Your task to perform on an android device: When is my next meeting? Image 0: 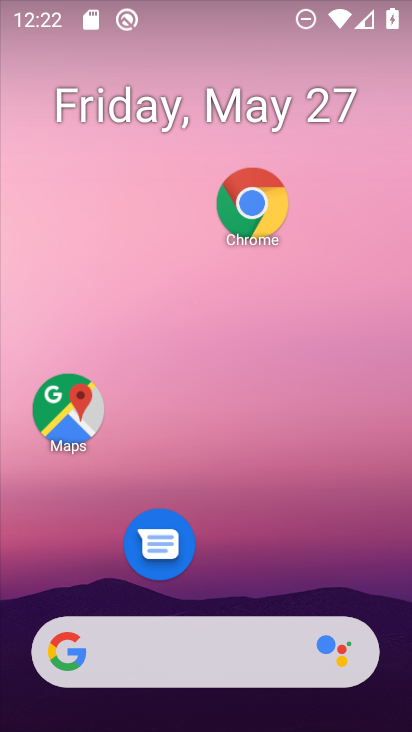
Step 0: drag from (209, 596) to (181, 157)
Your task to perform on an android device: When is my next meeting? Image 1: 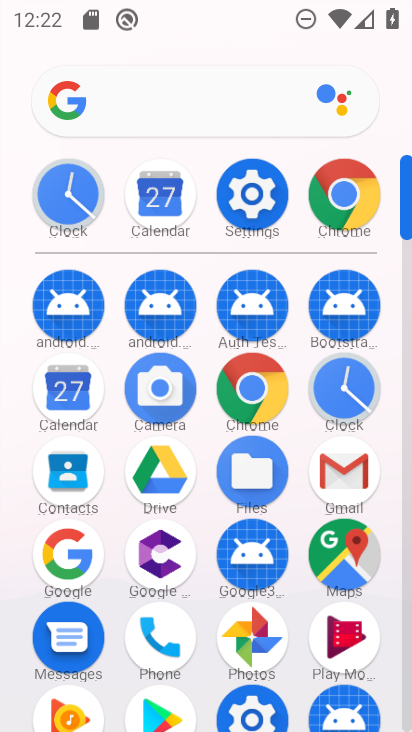
Step 1: drag from (198, 671) to (186, 281)
Your task to perform on an android device: When is my next meeting? Image 2: 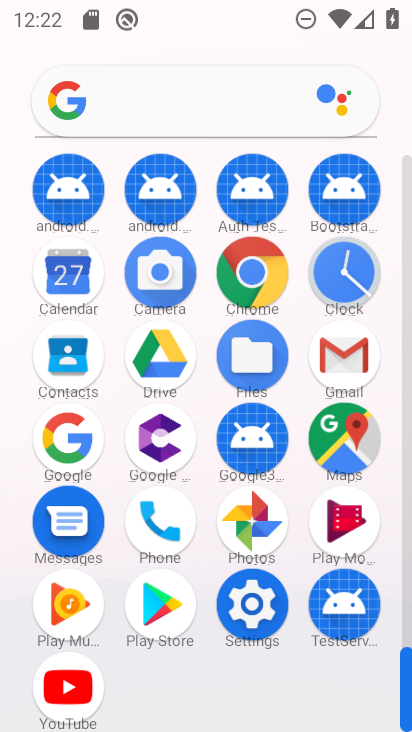
Step 2: click (65, 298)
Your task to perform on an android device: When is my next meeting? Image 3: 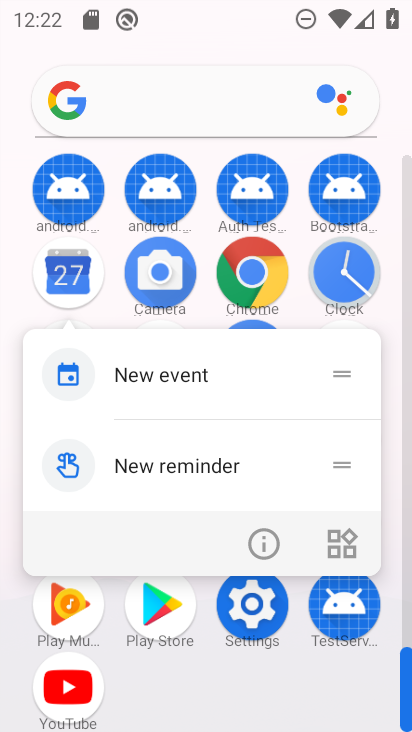
Step 3: click (266, 540)
Your task to perform on an android device: When is my next meeting? Image 4: 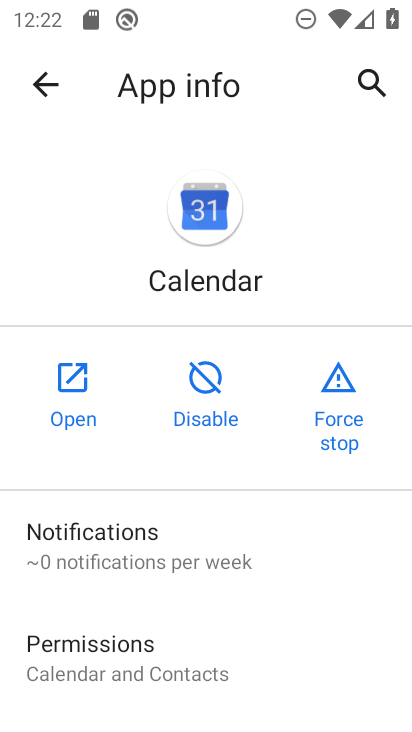
Step 4: click (71, 394)
Your task to perform on an android device: When is my next meeting? Image 5: 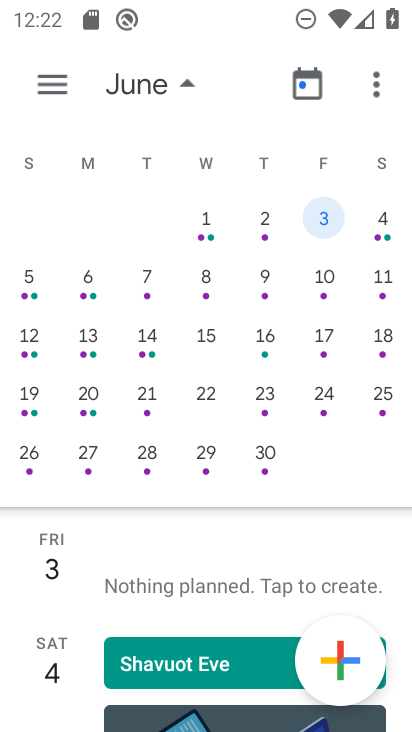
Step 5: drag from (71, 405) to (352, 268)
Your task to perform on an android device: When is my next meeting? Image 6: 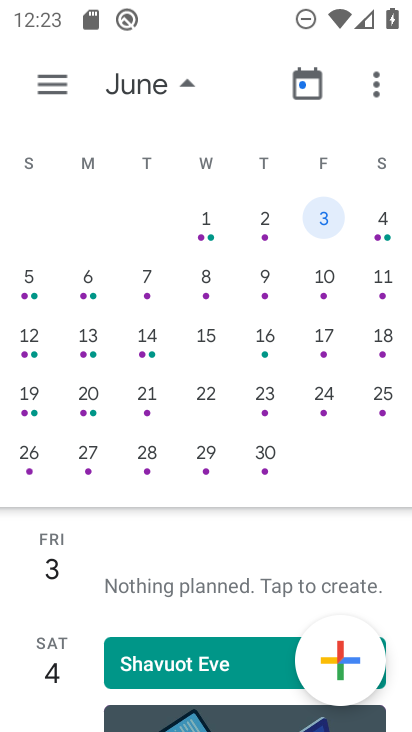
Step 6: drag from (68, 427) to (410, 185)
Your task to perform on an android device: When is my next meeting? Image 7: 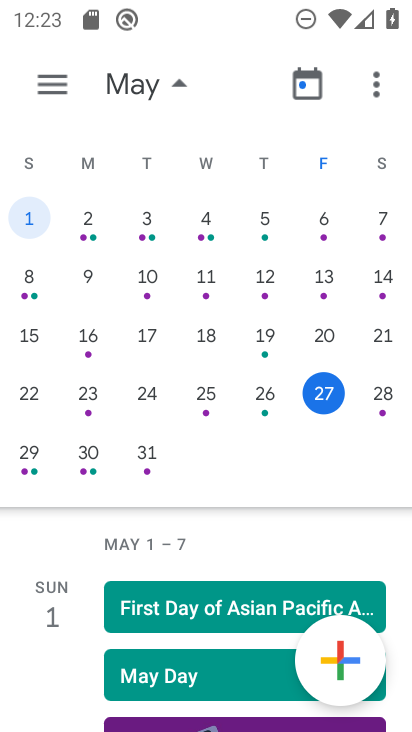
Step 7: click (323, 398)
Your task to perform on an android device: When is my next meeting? Image 8: 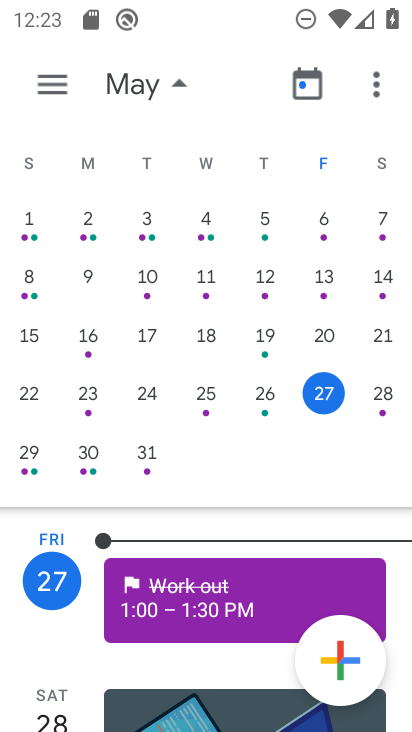
Step 8: drag from (199, 558) to (264, 363)
Your task to perform on an android device: When is my next meeting? Image 9: 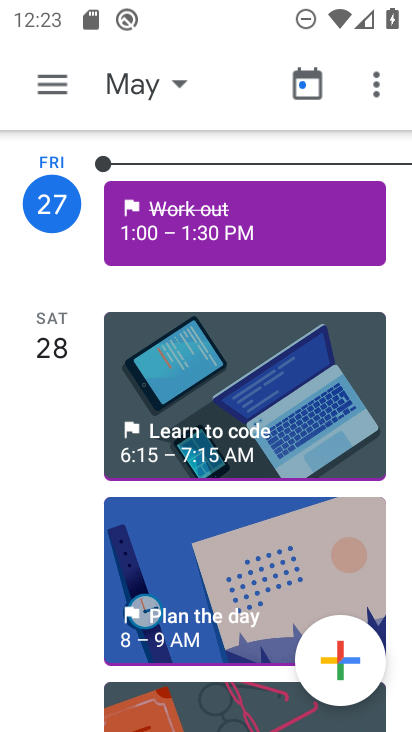
Step 9: drag from (252, 290) to (237, 490)
Your task to perform on an android device: When is my next meeting? Image 10: 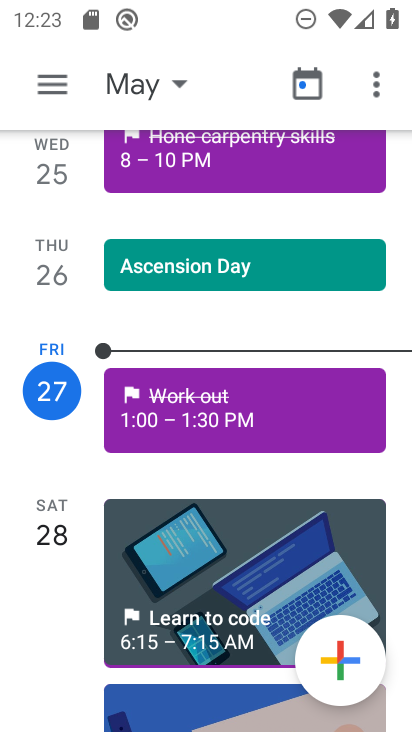
Step 10: drag from (201, 464) to (242, 248)
Your task to perform on an android device: When is my next meeting? Image 11: 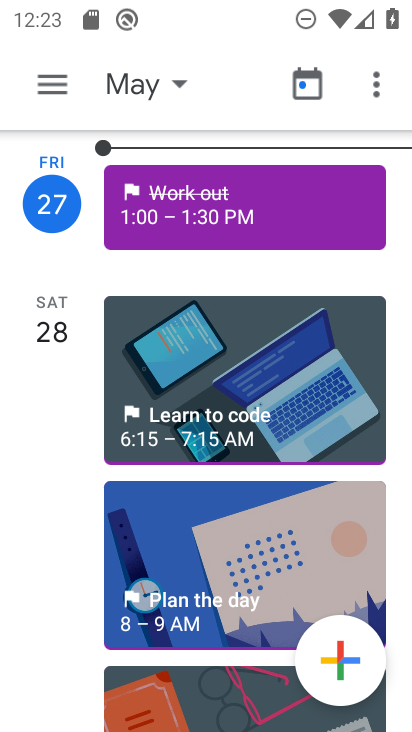
Step 11: click (150, 87)
Your task to perform on an android device: When is my next meeting? Image 12: 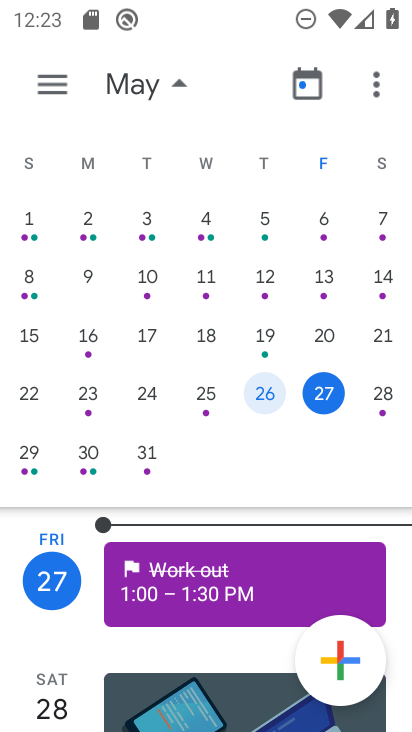
Step 12: click (148, 89)
Your task to perform on an android device: When is my next meeting? Image 13: 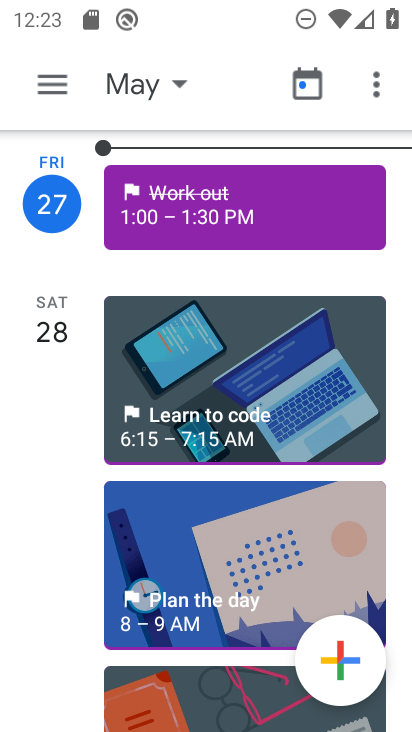
Step 13: task complete